Your task to perform on an android device: move a message to another label in the gmail app Image 0: 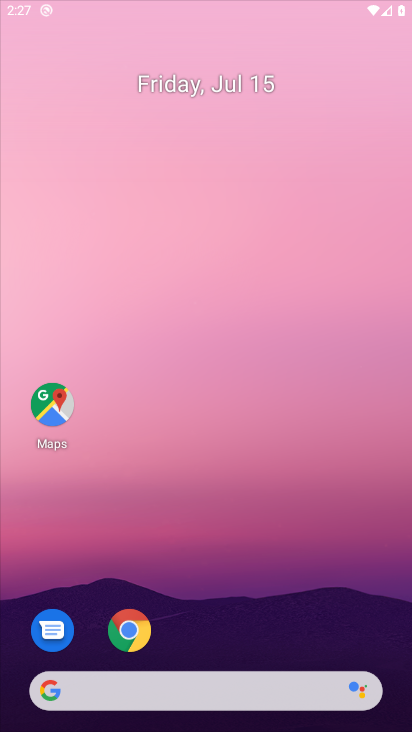
Step 0: press home button
Your task to perform on an android device: move a message to another label in the gmail app Image 1: 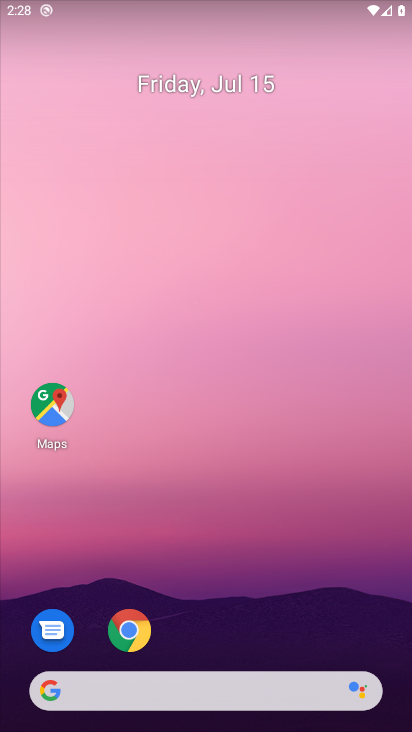
Step 1: drag from (295, 625) to (299, 91)
Your task to perform on an android device: move a message to another label in the gmail app Image 2: 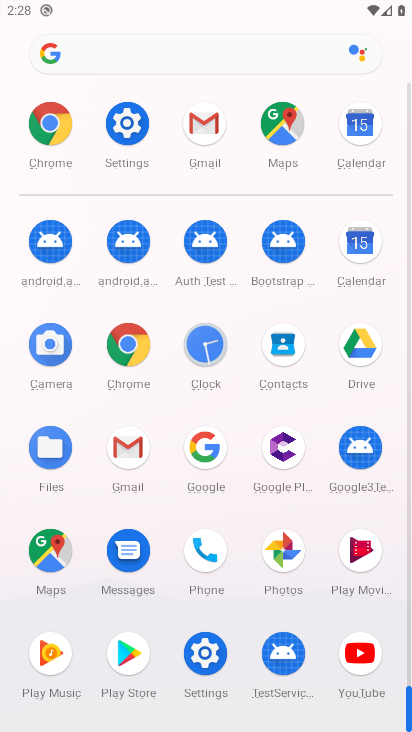
Step 2: click (206, 133)
Your task to perform on an android device: move a message to another label in the gmail app Image 3: 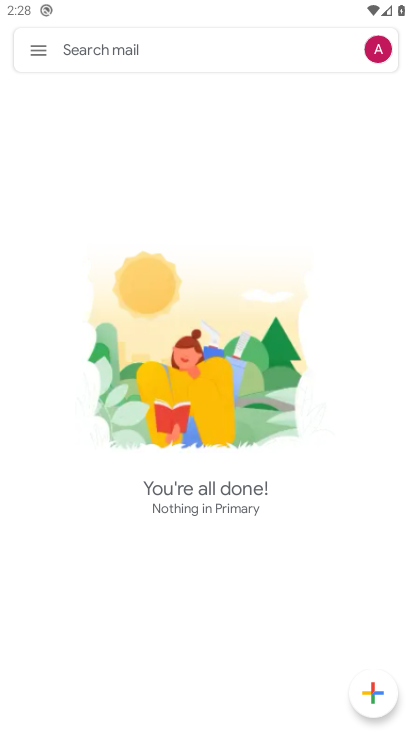
Step 3: click (39, 47)
Your task to perform on an android device: move a message to another label in the gmail app Image 4: 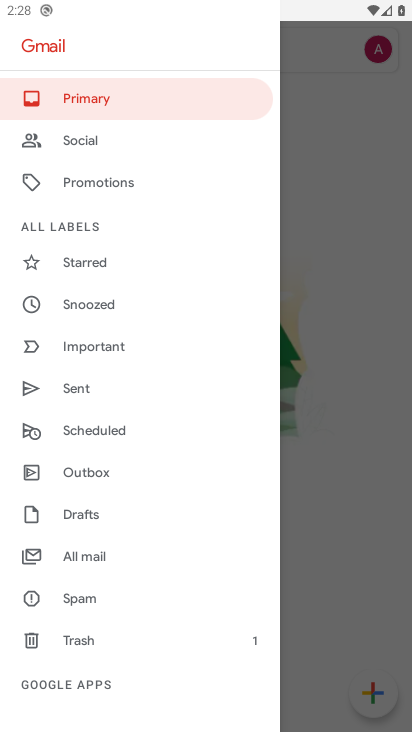
Step 4: click (87, 557)
Your task to perform on an android device: move a message to another label in the gmail app Image 5: 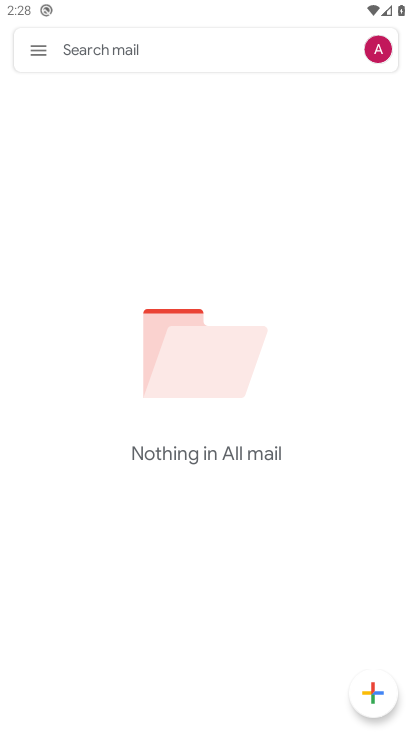
Step 5: task complete